Your task to perform on an android device: set default search engine in the chrome app Image 0: 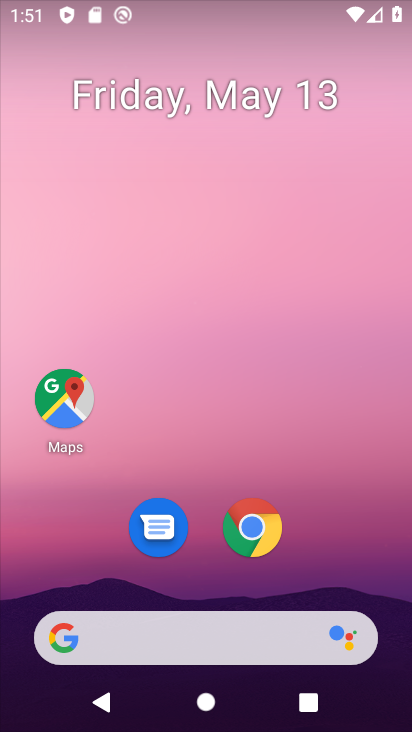
Step 0: drag from (347, 556) to (320, 156)
Your task to perform on an android device: set default search engine in the chrome app Image 1: 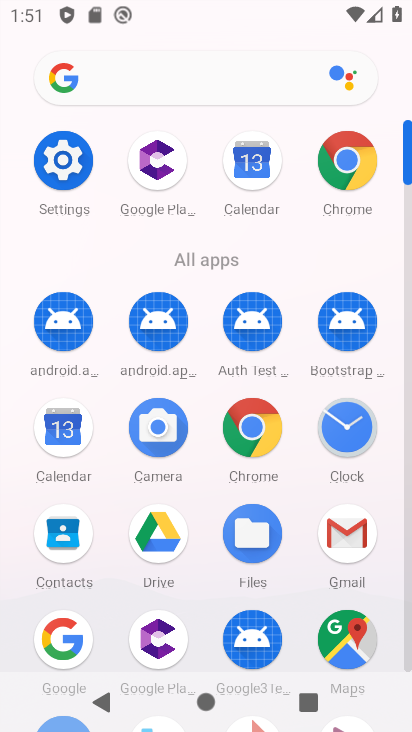
Step 1: click (335, 160)
Your task to perform on an android device: set default search engine in the chrome app Image 2: 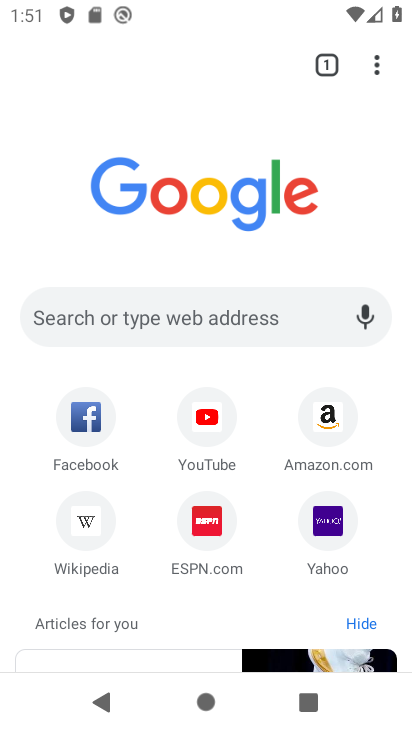
Step 2: drag from (383, 69) to (216, 555)
Your task to perform on an android device: set default search engine in the chrome app Image 3: 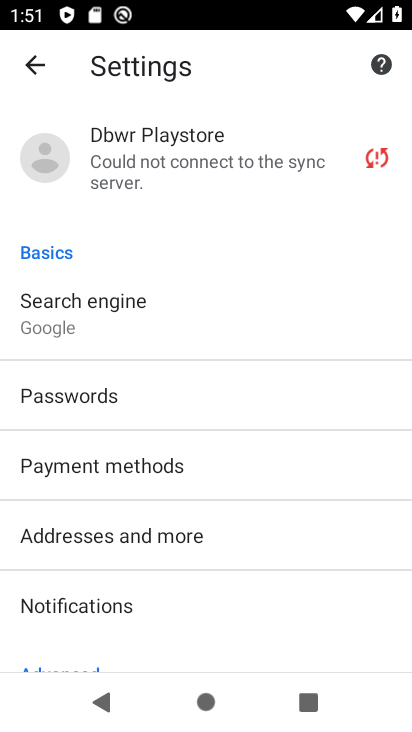
Step 3: drag from (273, 609) to (304, 426)
Your task to perform on an android device: set default search engine in the chrome app Image 4: 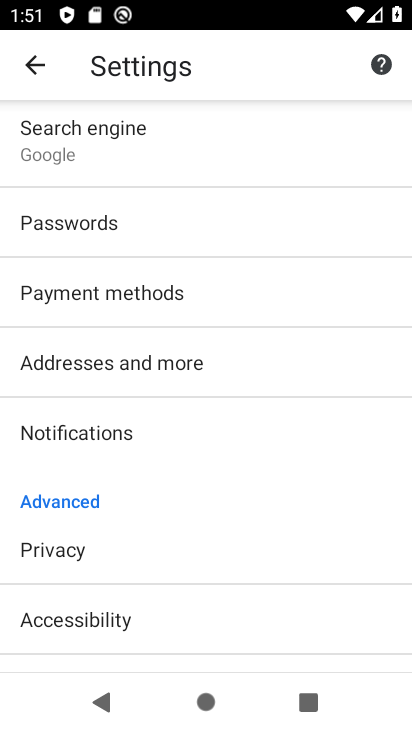
Step 4: click (133, 139)
Your task to perform on an android device: set default search engine in the chrome app Image 5: 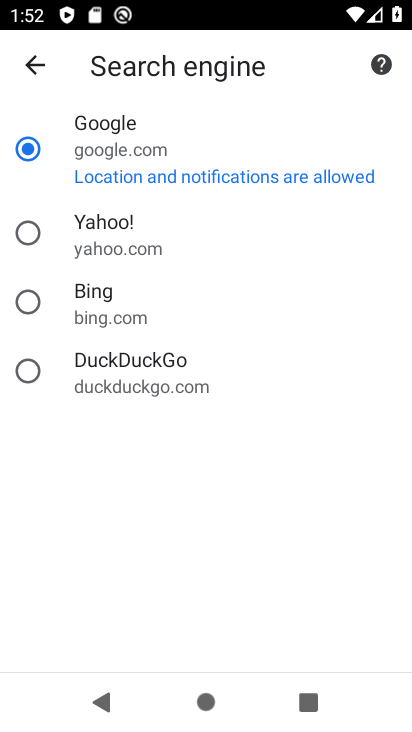
Step 5: click (38, 227)
Your task to perform on an android device: set default search engine in the chrome app Image 6: 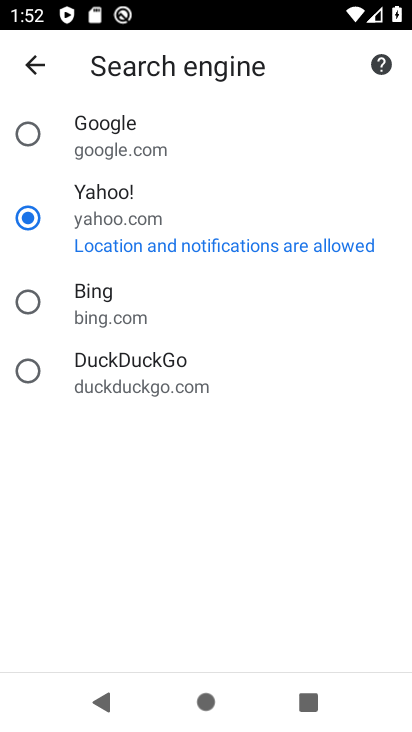
Step 6: task complete